Your task to perform on an android device: turn off smart reply in the gmail app Image 0: 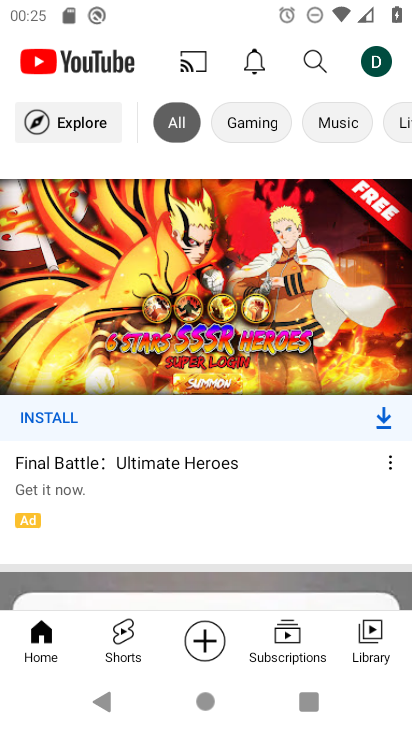
Step 0: press home button
Your task to perform on an android device: turn off smart reply in the gmail app Image 1: 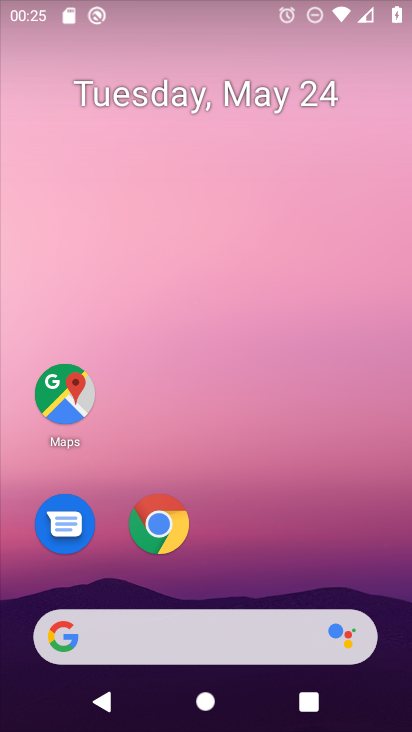
Step 1: drag from (247, 469) to (247, 159)
Your task to perform on an android device: turn off smart reply in the gmail app Image 2: 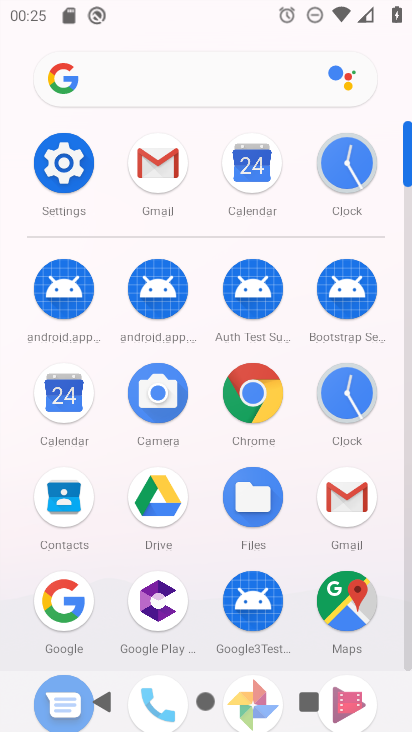
Step 2: click (153, 160)
Your task to perform on an android device: turn off smart reply in the gmail app Image 3: 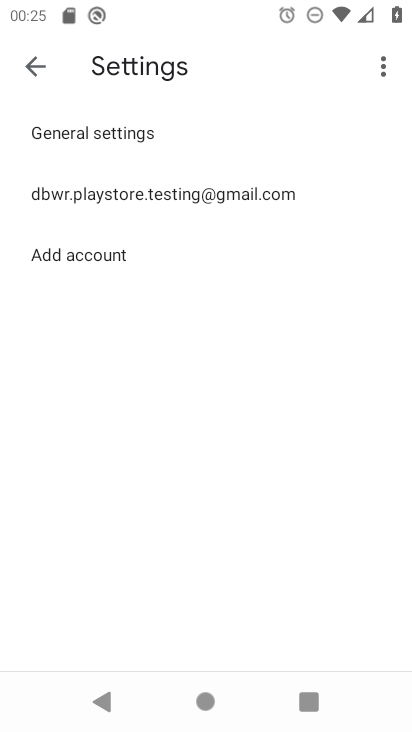
Step 3: click (191, 205)
Your task to perform on an android device: turn off smart reply in the gmail app Image 4: 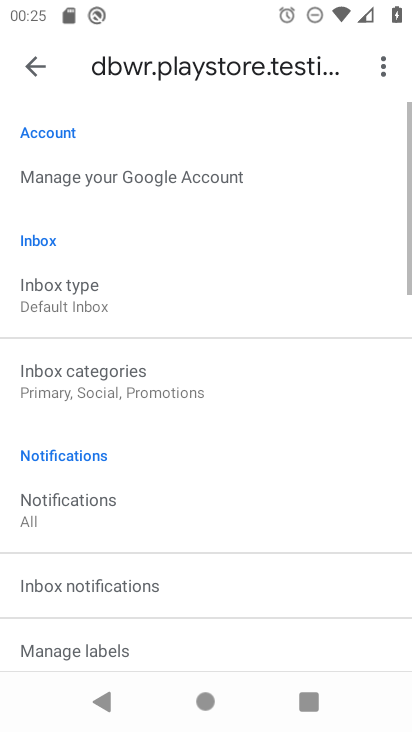
Step 4: drag from (209, 628) to (226, 299)
Your task to perform on an android device: turn off smart reply in the gmail app Image 5: 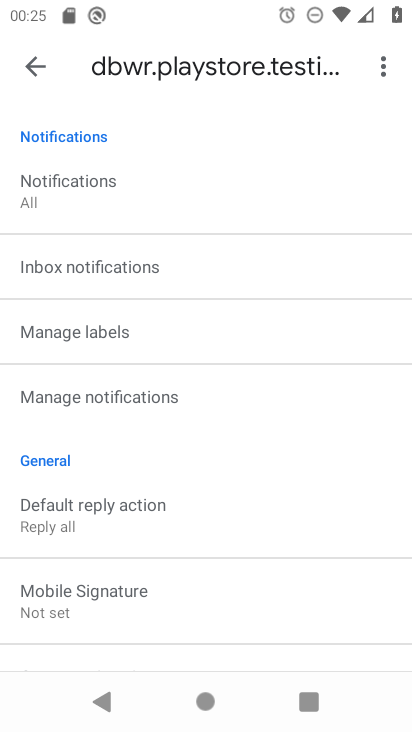
Step 5: drag from (239, 531) to (239, 257)
Your task to perform on an android device: turn off smart reply in the gmail app Image 6: 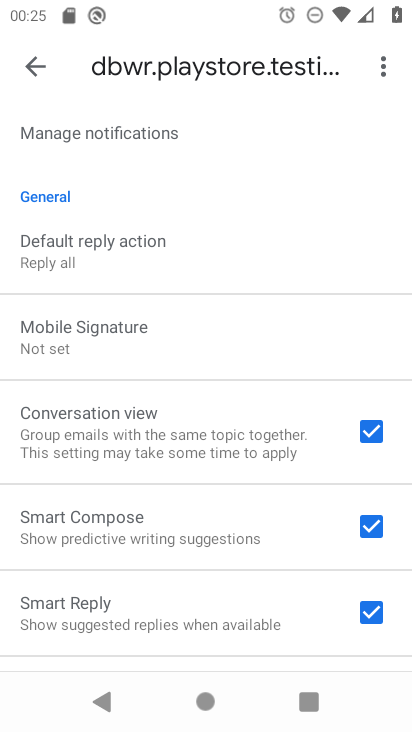
Step 6: click (355, 609)
Your task to perform on an android device: turn off smart reply in the gmail app Image 7: 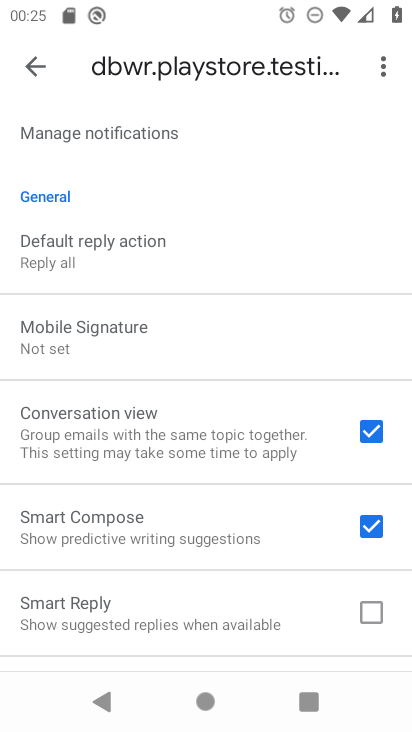
Step 7: task complete